Your task to perform on an android device: add a contact in the contacts app Image 0: 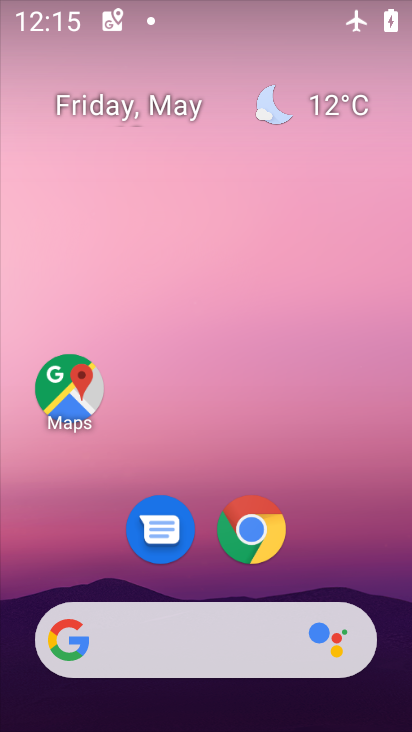
Step 0: drag from (318, 563) to (308, 295)
Your task to perform on an android device: add a contact in the contacts app Image 1: 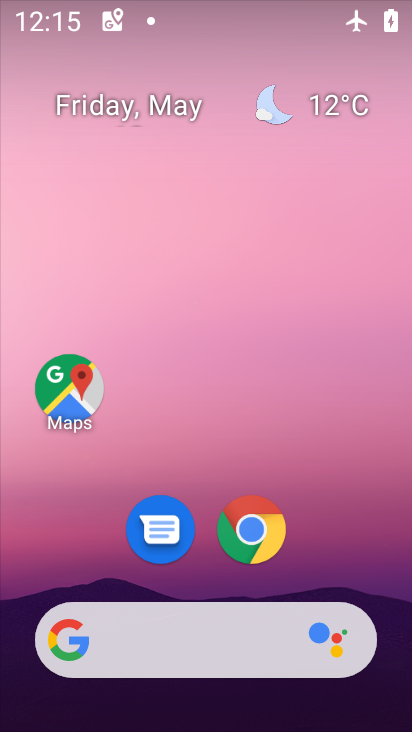
Step 1: drag from (311, 538) to (286, 297)
Your task to perform on an android device: add a contact in the contacts app Image 2: 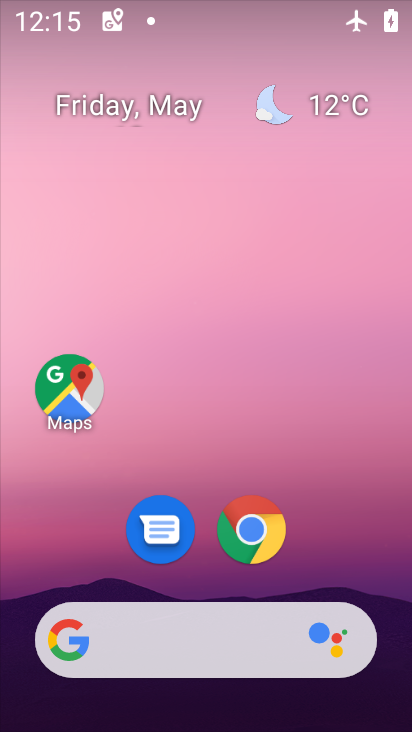
Step 2: drag from (309, 573) to (300, 161)
Your task to perform on an android device: add a contact in the contacts app Image 3: 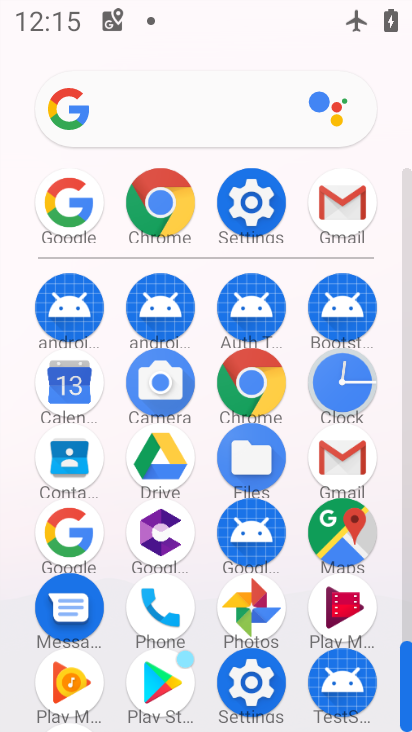
Step 3: click (172, 598)
Your task to perform on an android device: add a contact in the contacts app Image 4: 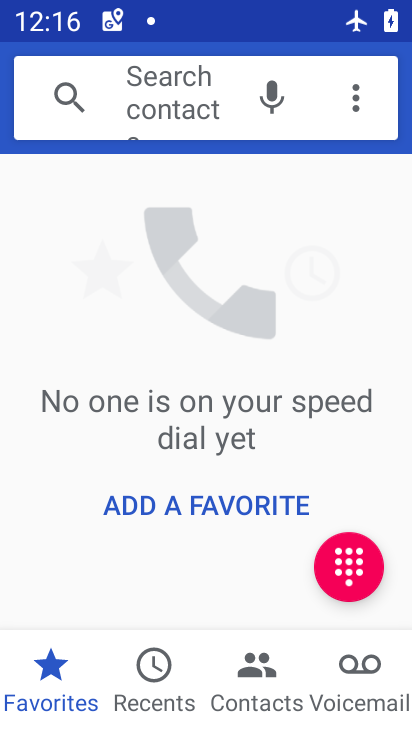
Step 4: click (232, 512)
Your task to perform on an android device: add a contact in the contacts app Image 5: 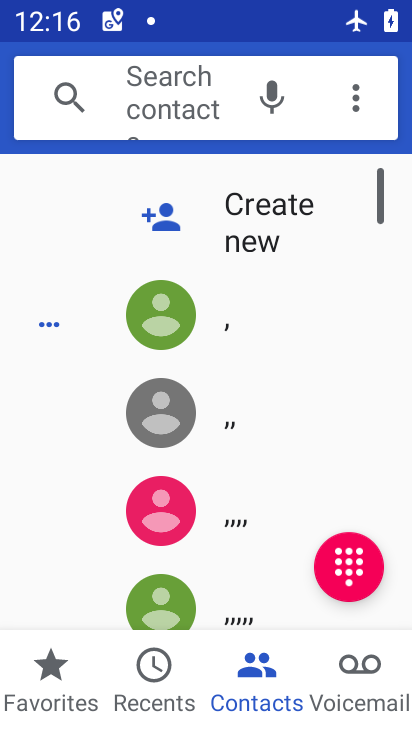
Step 5: click (221, 228)
Your task to perform on an android device: add a contact in the contacts app Image 6: 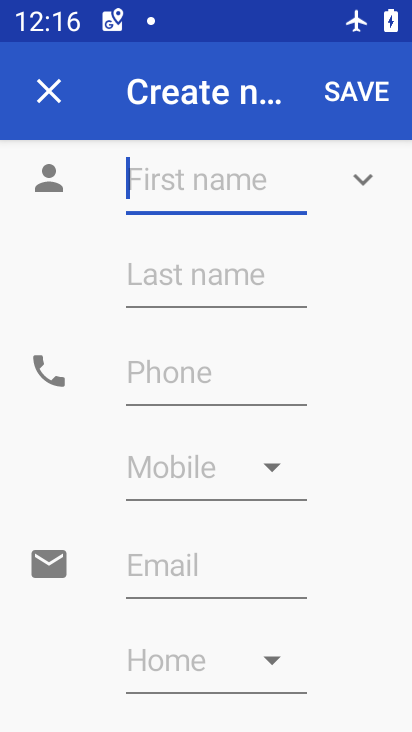
Step 6: click (176, 177)
Your task to perform on an android device: add a contact in the contacts app Image 7: 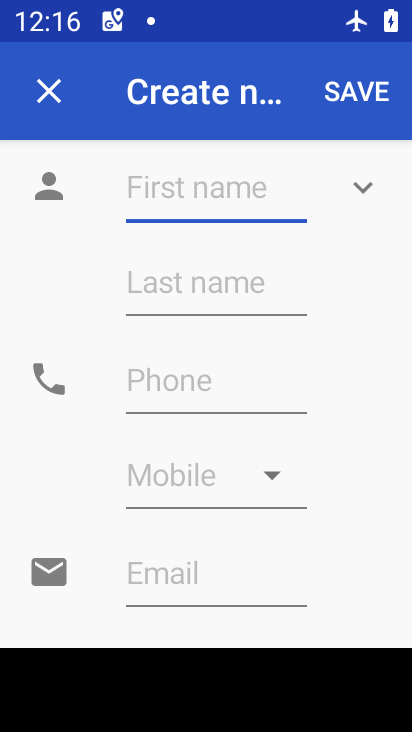
Step 7: type "jjhjhjhjhjhj"
Your task to perform on an android device: add a contact in the contacts app Image 8: 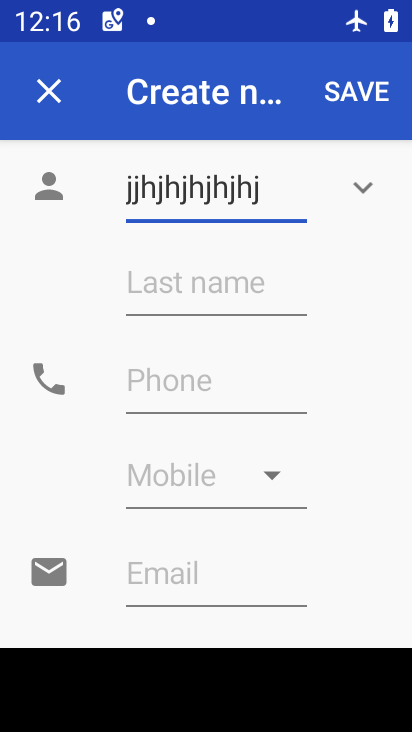
Step 8: click (187, 386)
Your task to perform on an android device: add a contact in the contacts app Image 9: 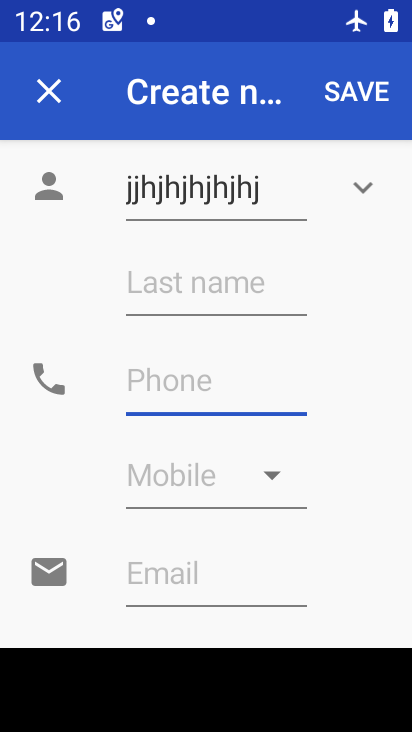
Step 9: type "87878787878"
Your task to perform on an android device: add a contact in the contacts app Image 10: 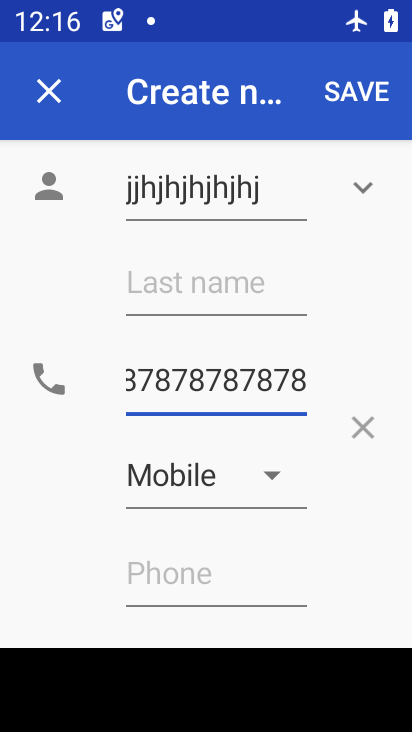
Step 10: click (366, 77)
Your task to perform on an android device: add a contact in the contacts app Image 11: 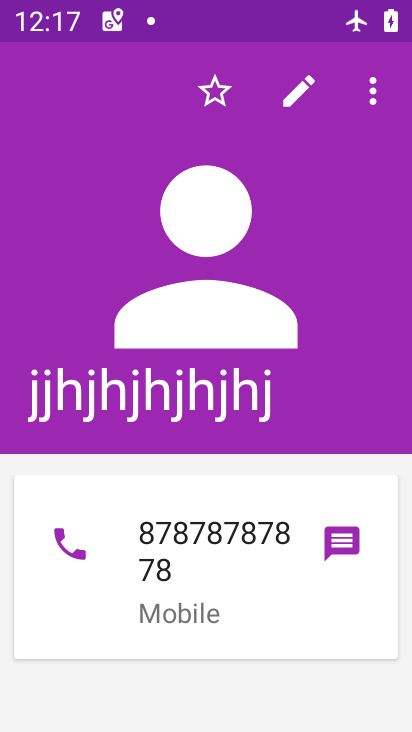
Step 11: task complete